Your task to perform on an android device: turn off airplane mode Image 0: 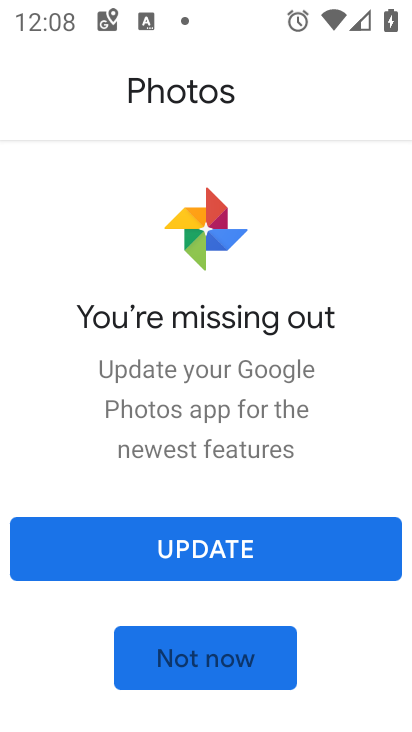
Step 0: press home button
Your task to perform on an android device: turn off airplane mode Image 1: 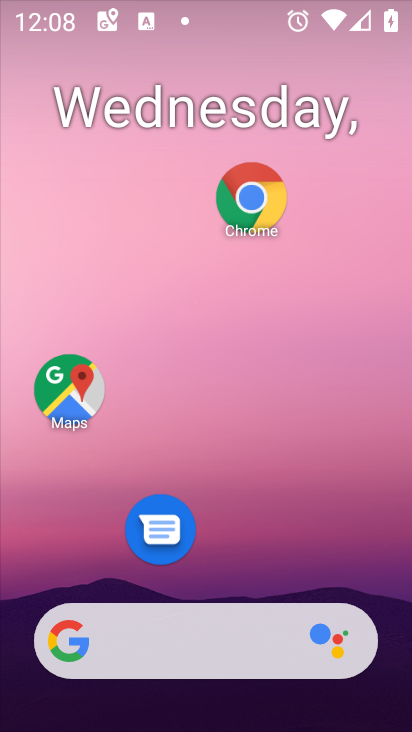
Step 1: drag from (189, 641) to (259, 173)
Your task to perform on an android device: turn off airplane mode Image 2: 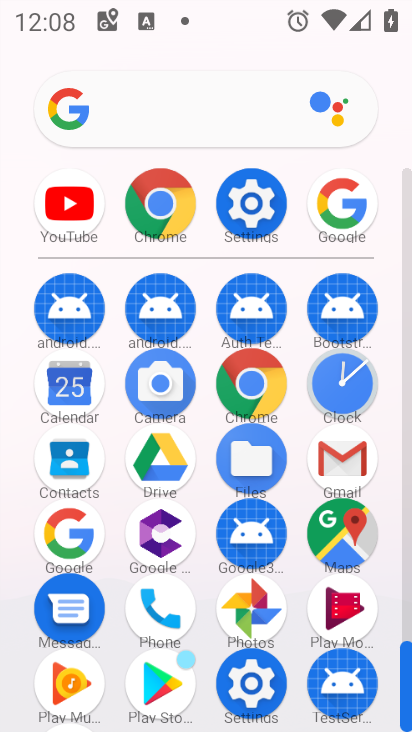
Step 2: click (260, 198)
Your task to perform on an android device: turn off airplane mode Image 3: 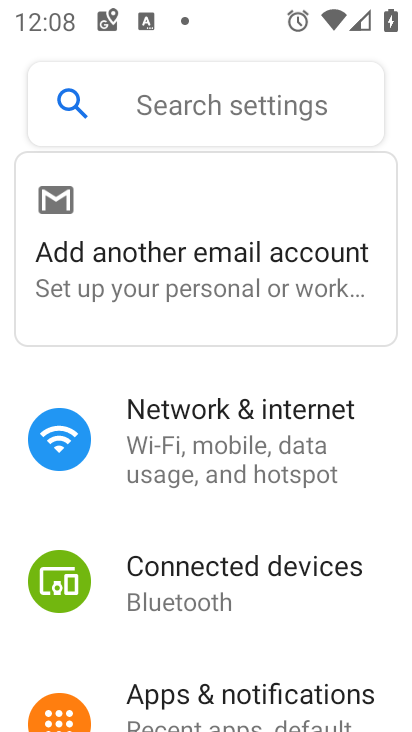
Step 3: click (213, 425)
Your task to perform on an android device: turn off airplane mode Image 4: 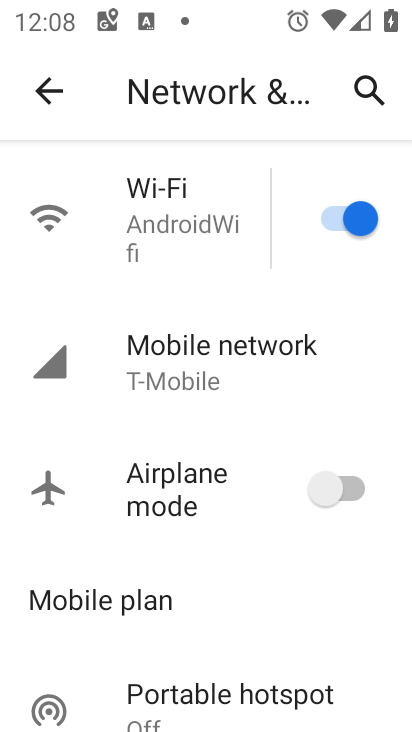
Step 4: task complete